Your task to perform on an android device: turn off javascript in the chrome app Image 0: 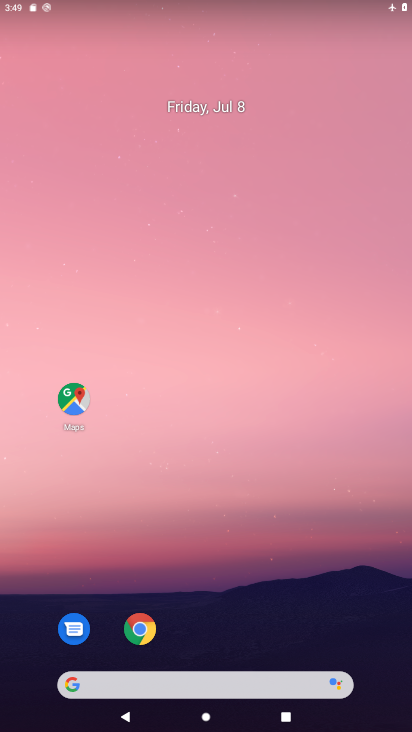
Step 0: drag from (205, 634) to (194, 283)
Your task to perform on an android device: turn off javascript in the chrome app Image 1: 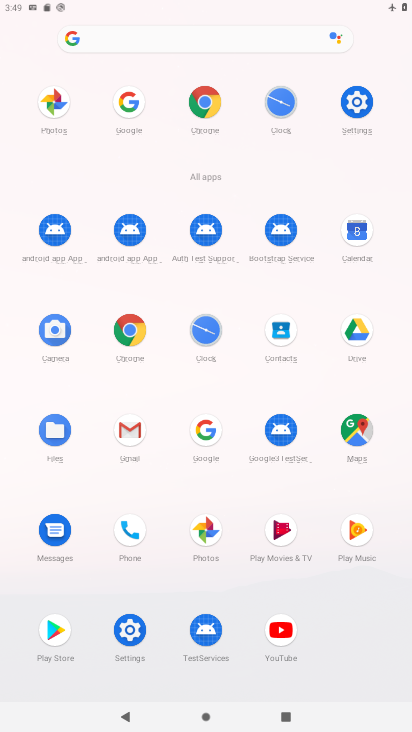
Step 1: click (120, 331)
Your task to perform on an android device: turn off javascript in the chrome app Image 2: 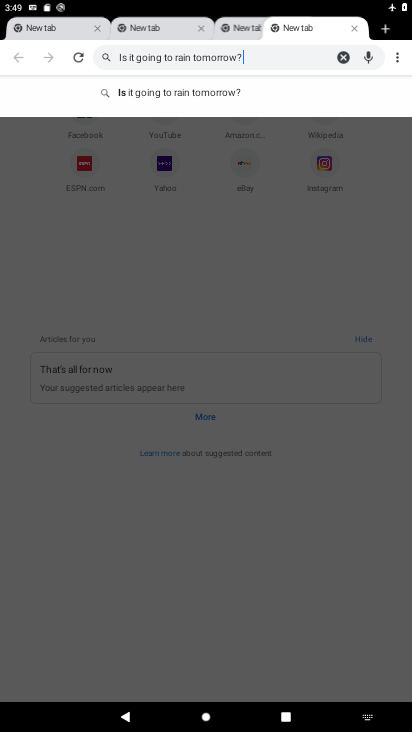
Step 2: click (397, 57)
Your task to perform on an android device: turn off javascript in the chrome app Image 3: 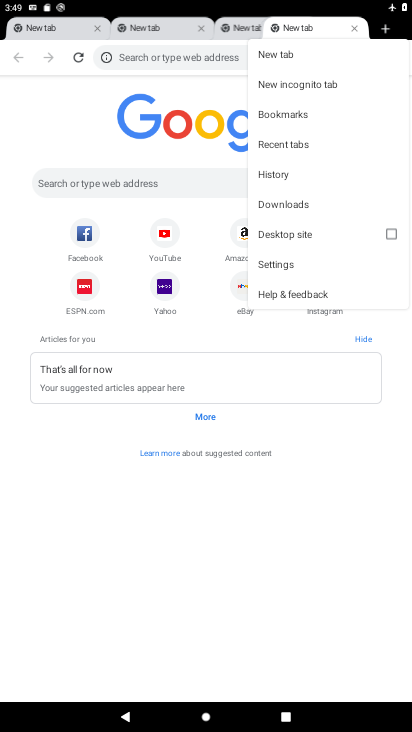
Step 3: click (304, 267)
Your task to perform on an android device: turn off javascript in the chrome app Image 4: 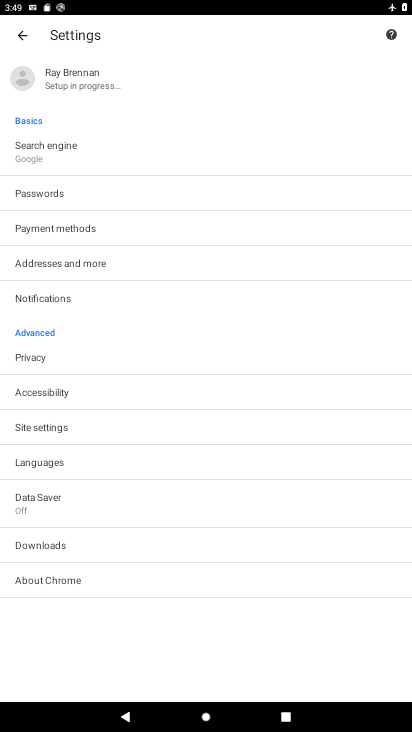
Step 4: click (85, 428)
Your task to perform on an android device: turn off javascript in the chrome app Image 5: 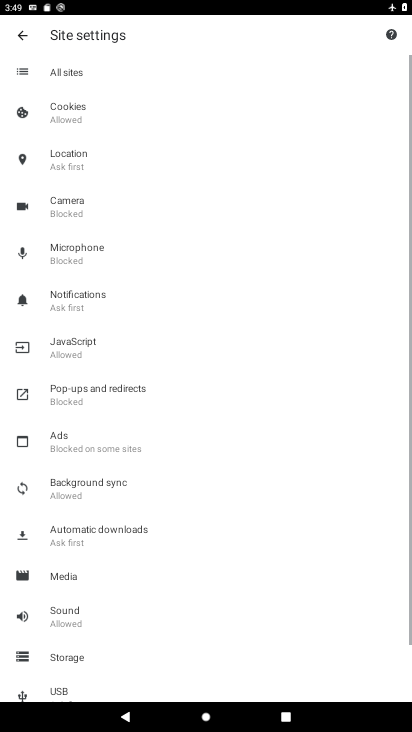
Step 5: click (107, 338)
Your task to perform on an android device: turn off javascript in the chrome app Image 6: 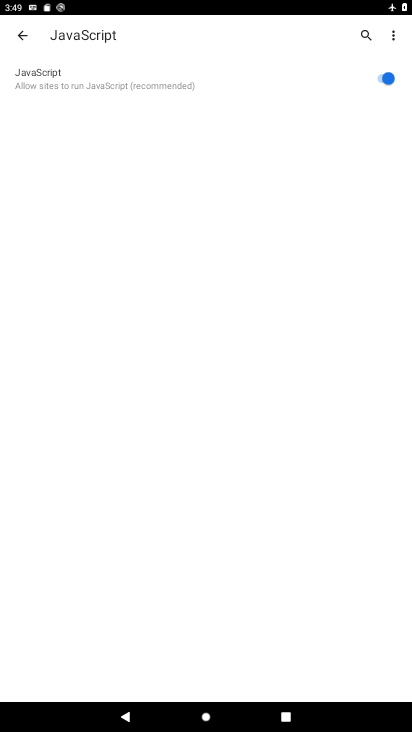
Step 6: click (380, 79)
Your task to perform on an android device: turn off javascript in the chrome app Image 7: 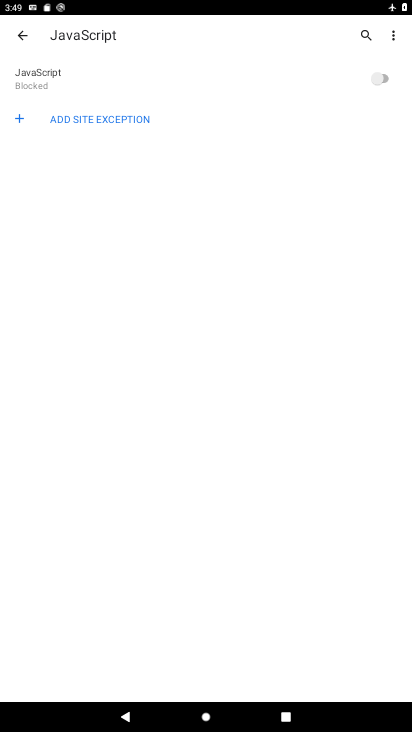
Step 7: task complete